Your task to perform on an android device: see creations saved in the google photos Image 0: 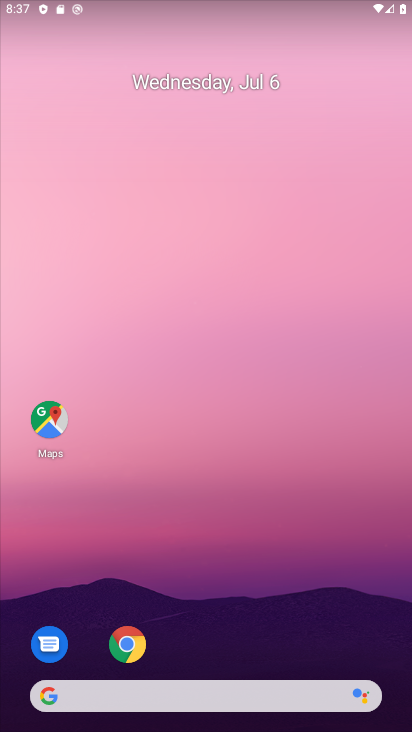
Step 0: drag from (205, 664) to (151, 117)
Your task to perform on an android device: see creations saved in the google photos Image 1: 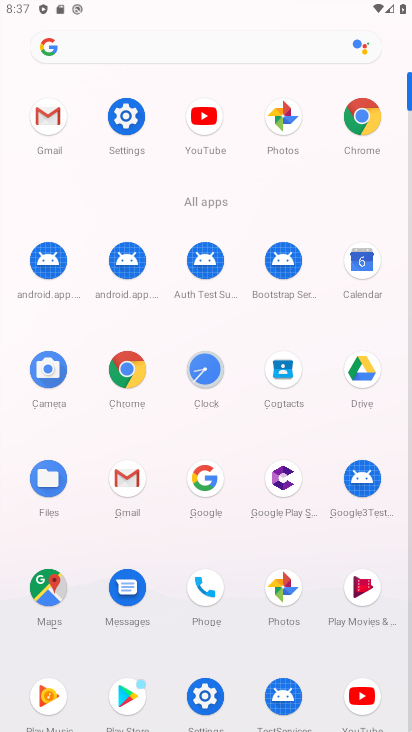
Step 1: click (285, 575)
Your task to perform on an android device: see creations saved in the google photos Image 2: 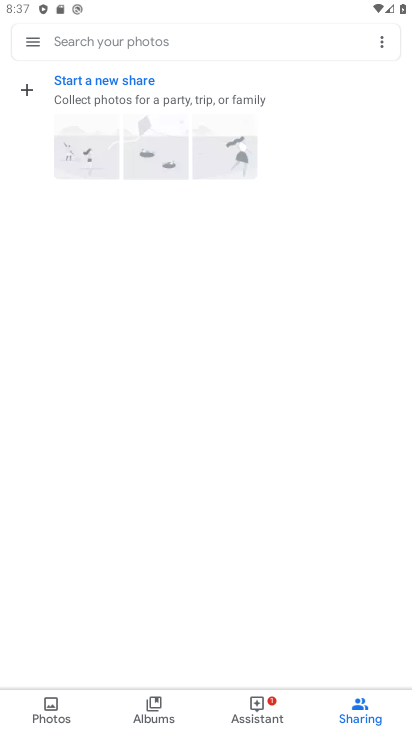
Step 2: drag from (24, 84) to (20, 39)
Your task to perform on an android device: see creations saved in the google photos Image 3: 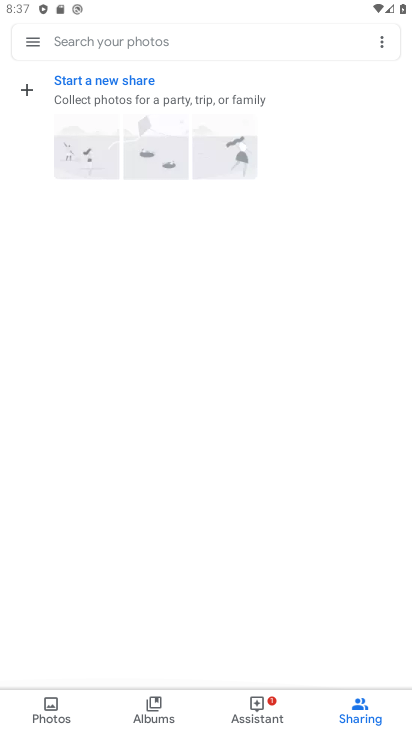
Step 3: click (20, 39)
Your task to perform on an android device: see creations saved in the google photos Image 4: 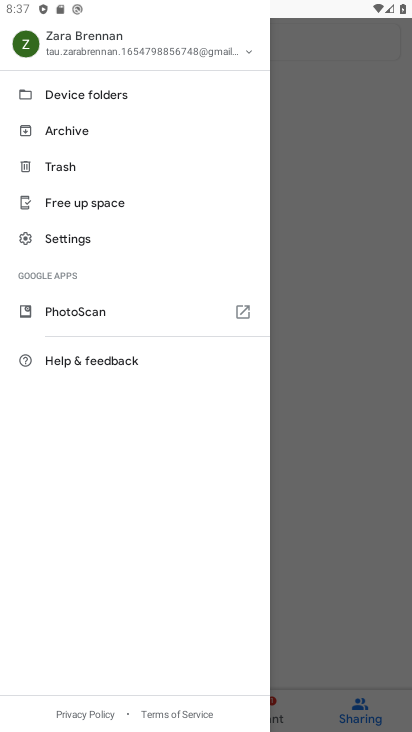
Step 4: click (63, 246)
Your task to perform on an android device: see creations saved in the google photos Image 5: 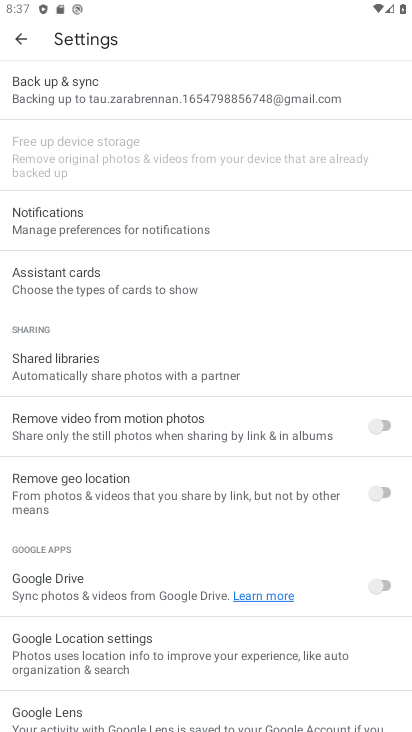
Step 5: click (27, 36)
Your task to perform on an android device: see creations saved in the google photos Image 6: 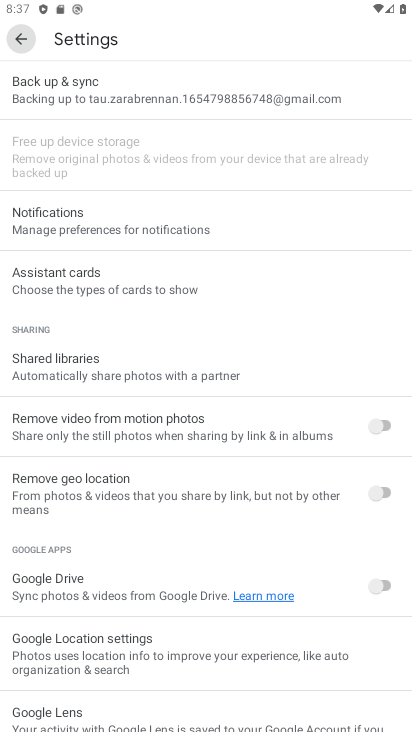
Step 6: task complete